Your task to perform on an android device: Go to Reddit.com Image 0: 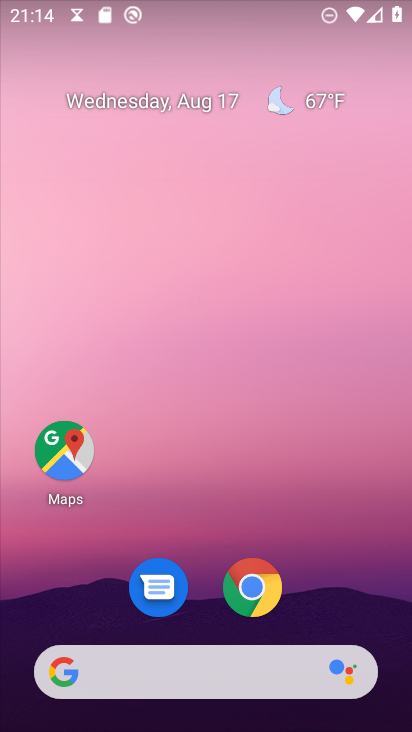
Step 0: click (126, 661)
Your task to perform on an android device: Go to Reddit.com Image 1: 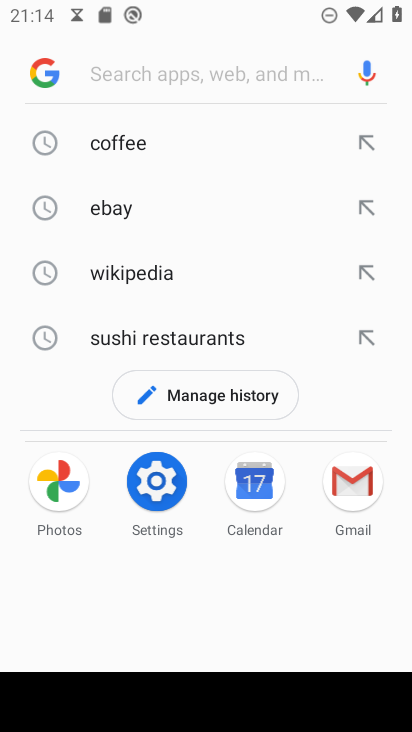
Step 1: type "Reddit.com"
Your task to perform on an android device: Go to Reddit.com Image 2: 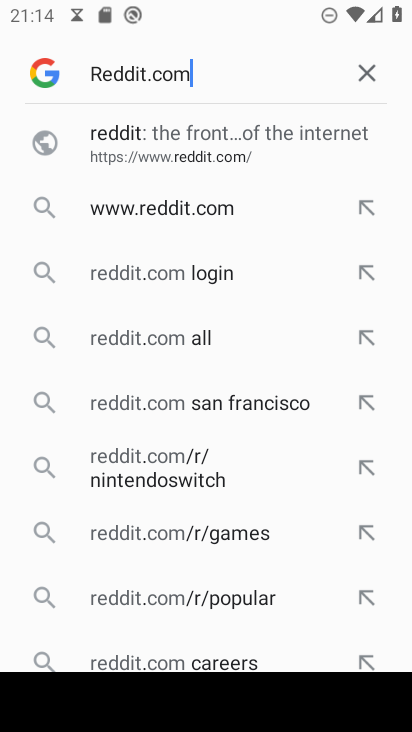
Step 2: click (230, 204)
Your task to perform on an android device: Go to Reddit.com Image 3: 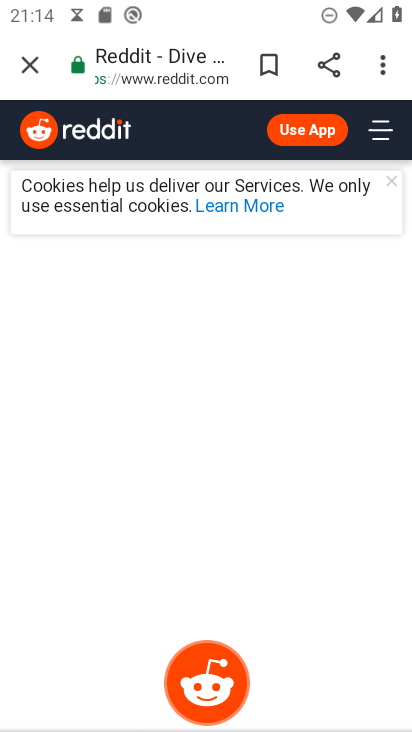
Step 3: task complete